Your task to perform on an android device: Go to ESPN.com Image 0: 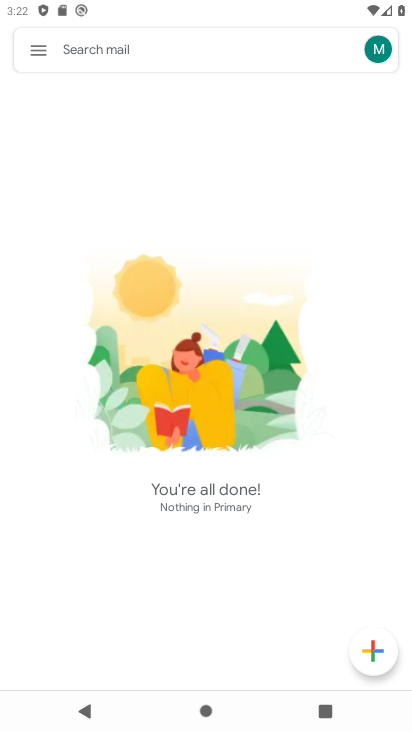
Step 0: press home button
Your task to perform on an android device: Go to ESPN.com Image 1: 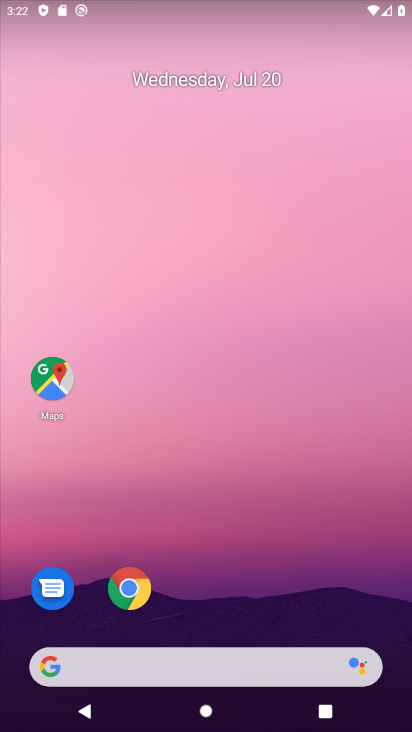
Step 1: drag from (337, 511) to (352, 104)
Your task to perform on an android device: Go to ESPN.com Image 2: 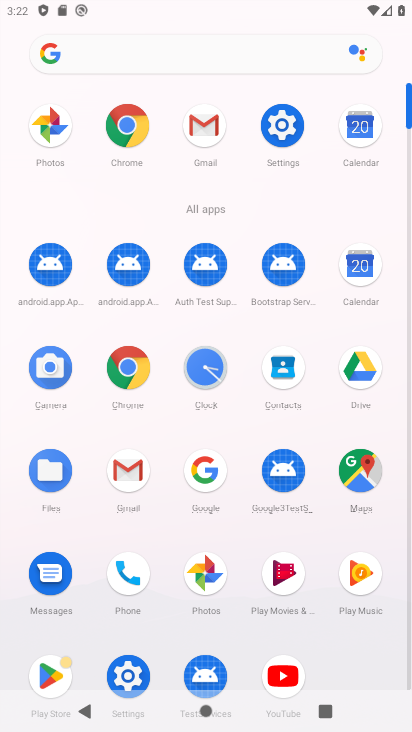
Step 2: click (130, 121)
Your task to perform on an android device: Go to ESPN.com Image 3: 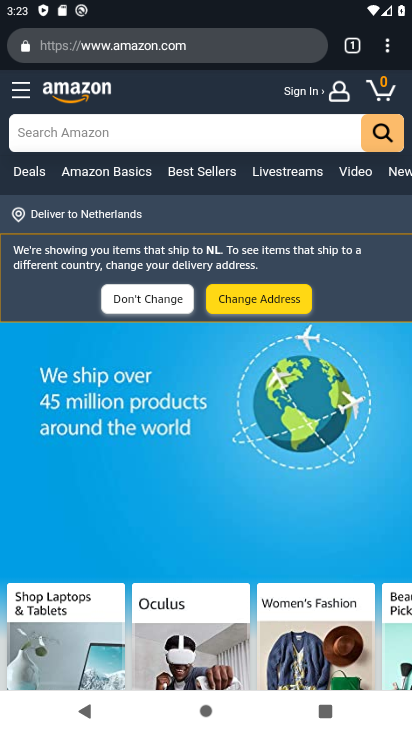
Step 3: click (239, 58)
Your task to perform on an android device: Go to ESPN.com Image 4: 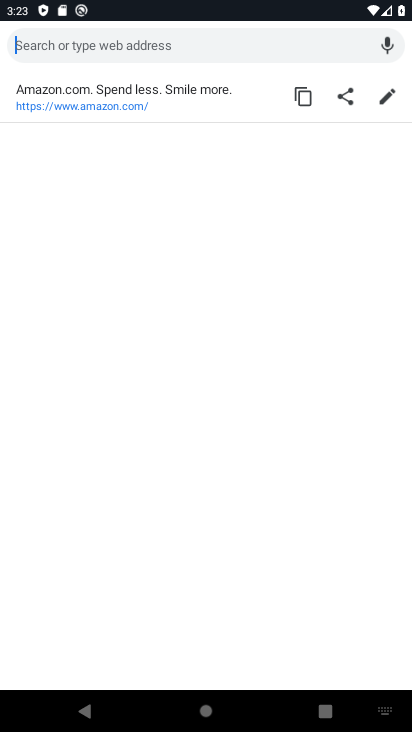
Step 4: type "espn.com"
Your task to perform on an android device: Go to ESPN.com Image 5: 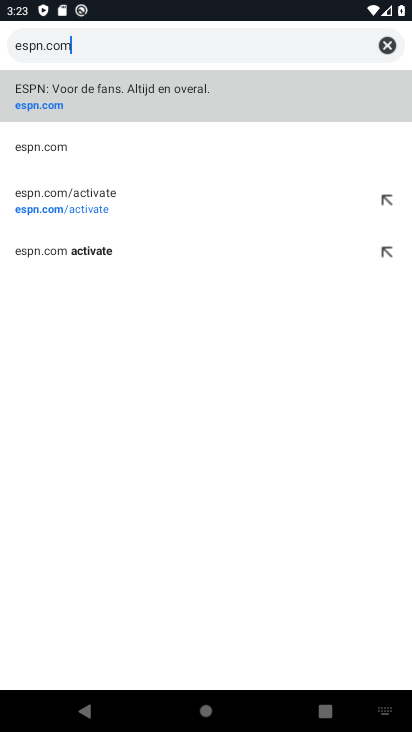
Step 5: click (57, 106)
Your task to perform on an android device: Go to ESPN.com Image 6: 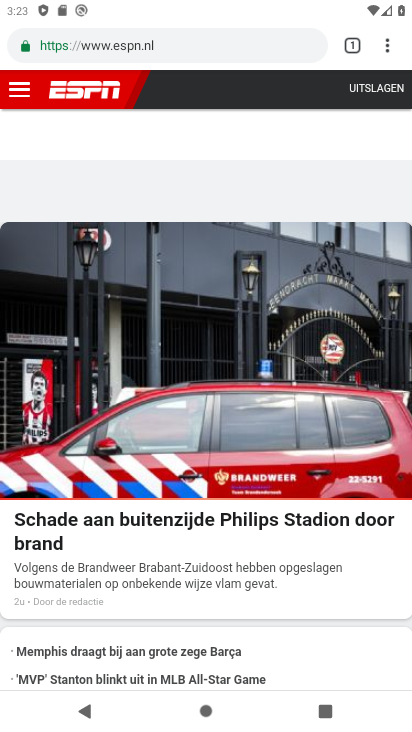
Step 6: task complete